Your task to perform on an android device: toggle notifications settings in the gmail app Image 0: 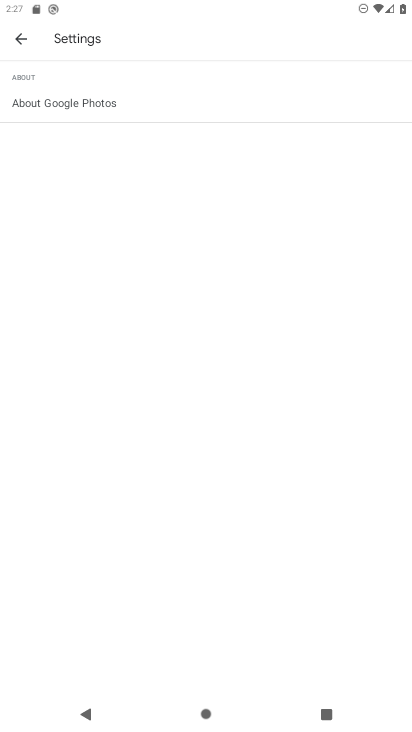
Step 0: press home button
Your task to perform on an android device: toggle notifications settings in the gmail app Image 1: 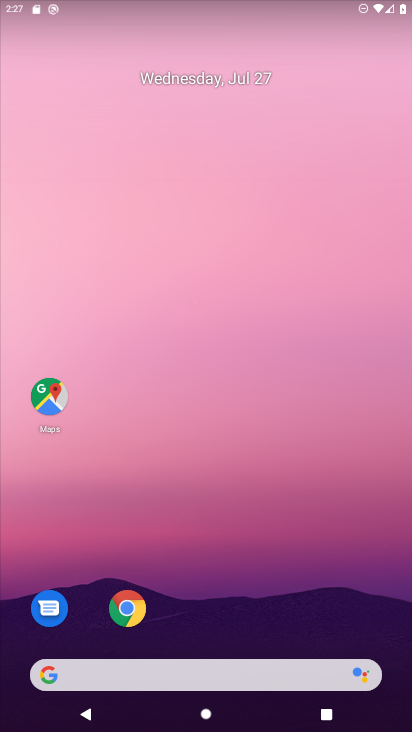
Step 1: drag from (252, 626) to (215, 19)
Your task to perform on an android device: toggle notifications settings in the gmail app Image 2: 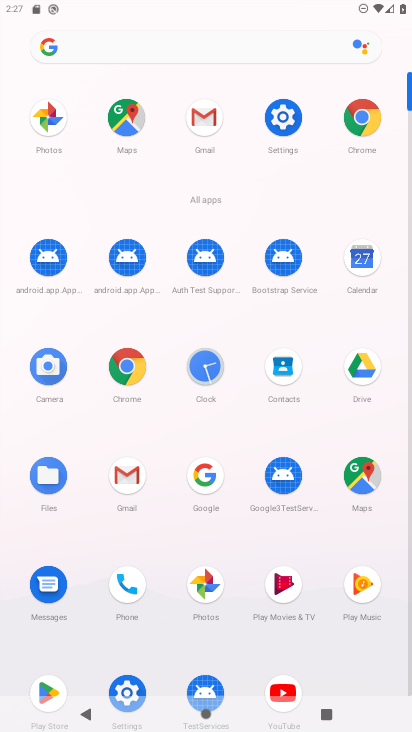
Step 2: click (213, 110)
Your task to perform on an android device: toggle notifications settings in the gmail app Image 3: 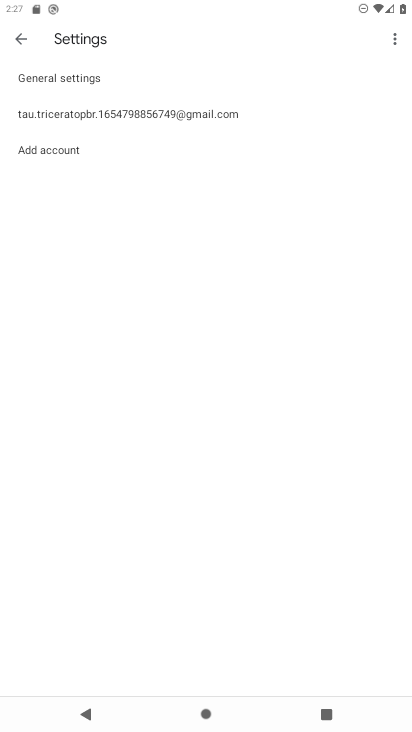
Step 3: click (53, 113)
Your task to perform on an android device: toggle notifications settings in the gmail app Image 4: 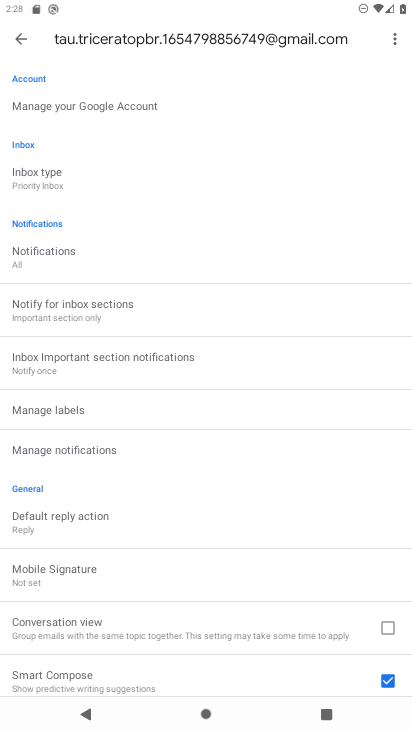
Step 4: click (115, 440)
Your task to perform on an android device: toggle notifications settings in the gmail app Image 5: 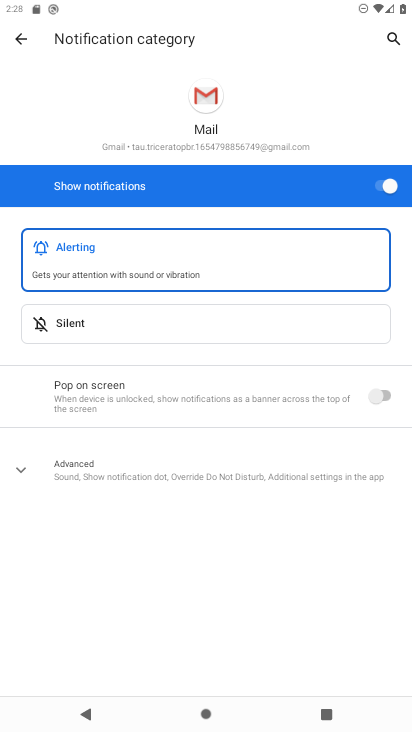
Step 5: click (200, 333)
Your task to perform on an android device: toggle notifications settings in the gmail app Image 6: 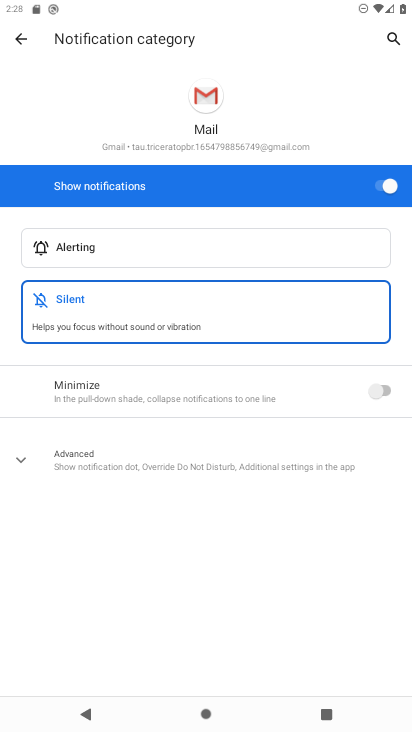
Step 6: click (361, 398)
Your task to perform on an android device: toggle notifications settings in the gmail app Image 7: 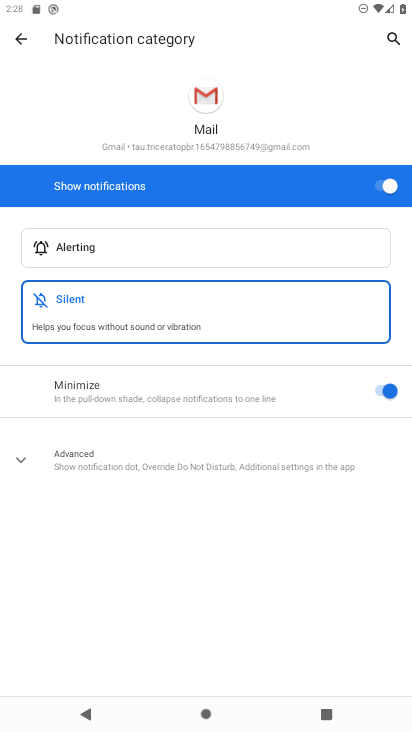
Step 7: task complete